Your task to perform on an android device: Open privacy settings Image 0: 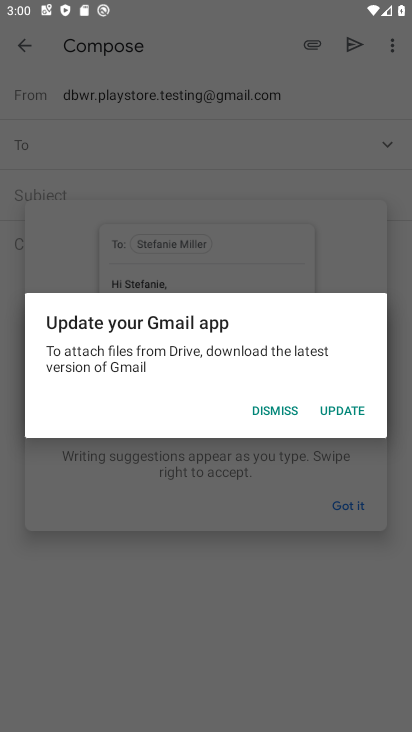
Step 0: press home button
Your task to perform on an android device: Open privacy settings Image 1: 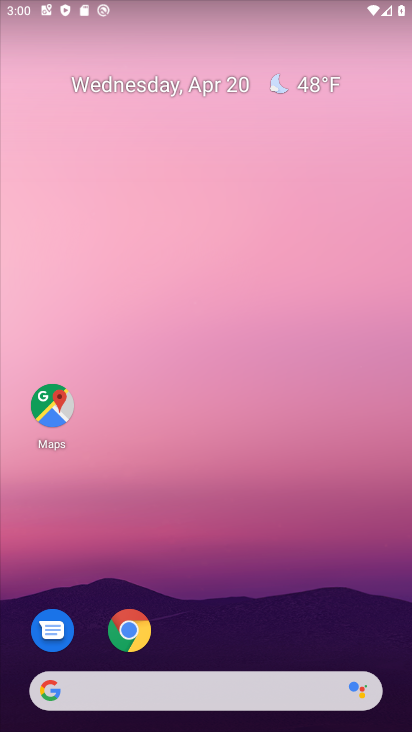
Step 1: drag from (232, 727) to (285, 3)
Your task to perform on an android device: Open privacy settings Image 2: 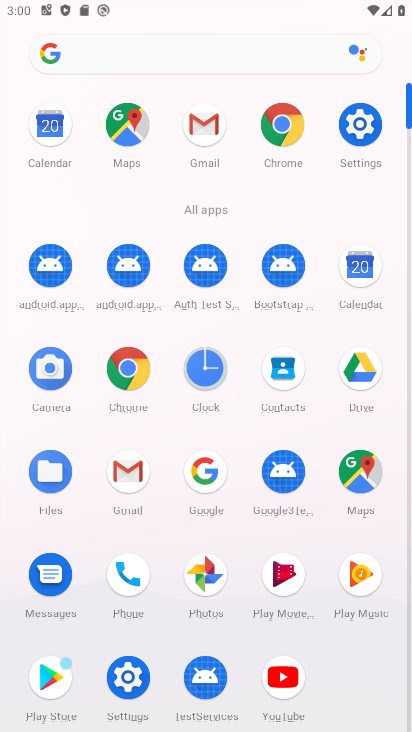
Step 2: click (359, 129)
Your task to perform on an android device: Open privacy settings Image 3: 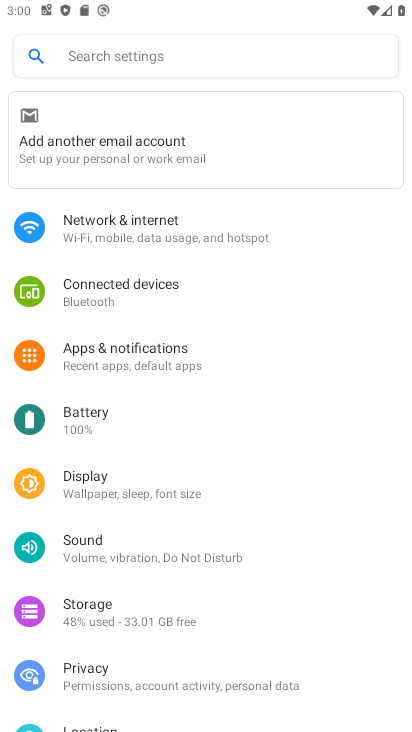
Step 3: click (145, 671)
Your task to perform on an android device: Open privacy settings Image 4: 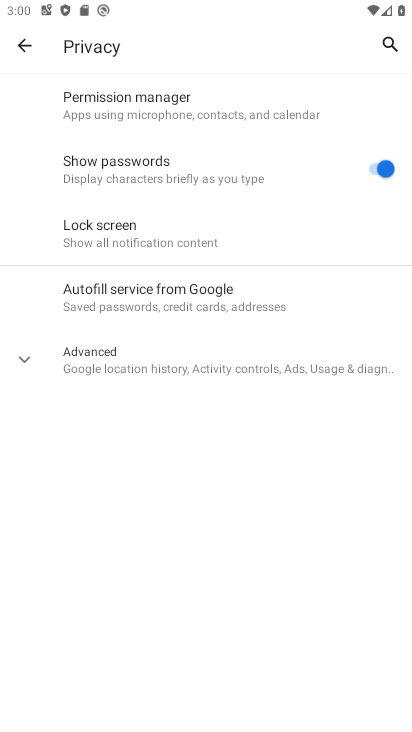
Step 4: task complete